Your task to perform on an android device: turn on priority inbox in the gmail app Image 0: 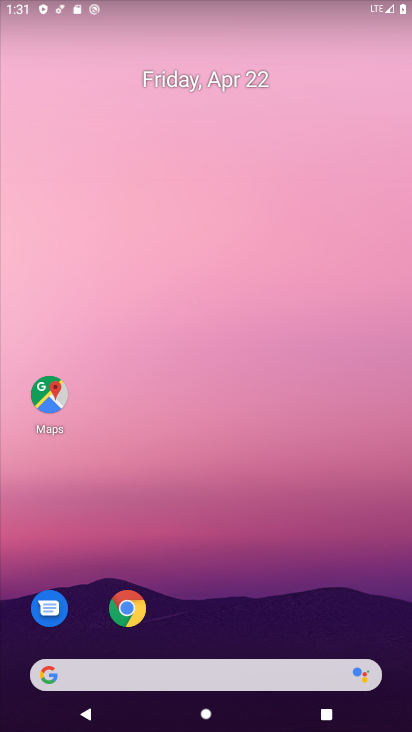
Step 0: drag from (183, 692) to (221, 298)
Your task to perform on an android device: turn on priority inbox in the gmail app Image 1: 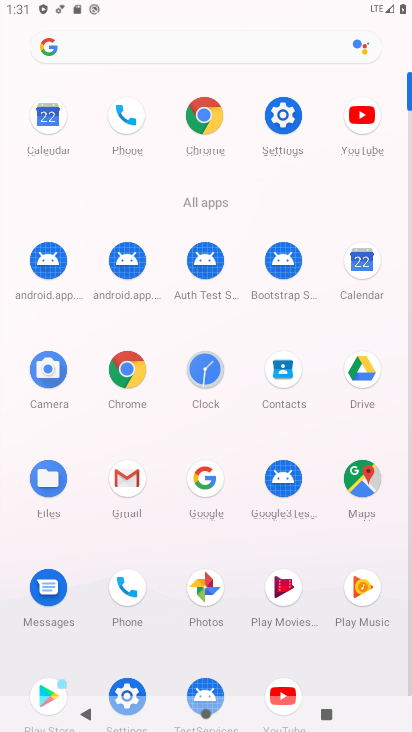
Step 1: click (118, 470)
Your task to perform on an android device: turn on priority inbox in the gmail app Image 2: 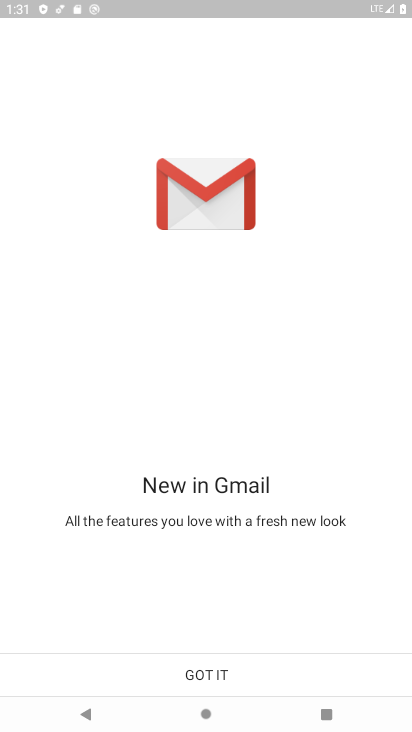
Step 2: click (172, 682)
Your task to perform on an android device: turn on priority inbox in the gmail app Image 3: 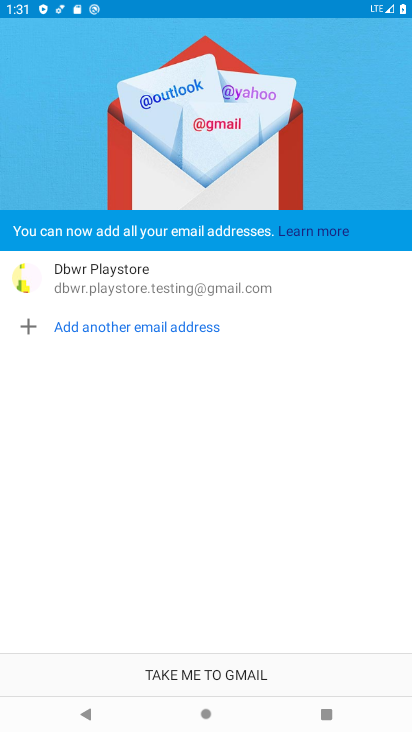
Step 3: click (172, 677)
Your task to perform on an android device: turn on priority inbox in the gmail app Image 4: 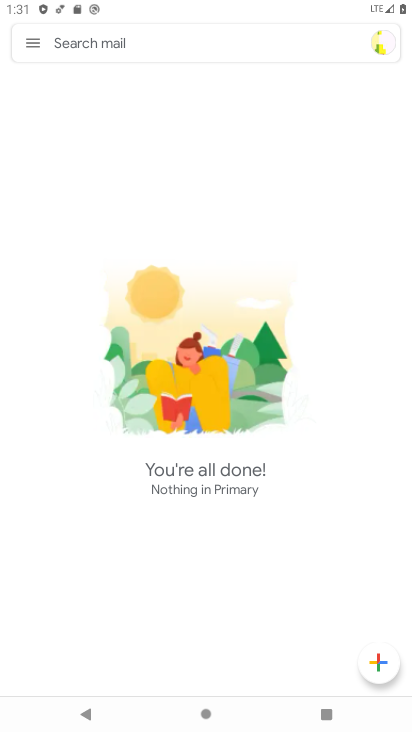
Step 4: click (44, 39)
Your task to perform on an android device: turn on priority inbox in the gmail app Image 5: 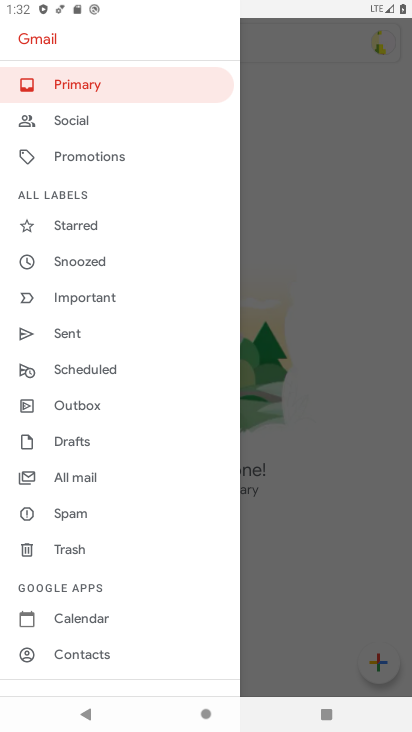
Step 5: drag from (64, 582) to (104, 476)
Your task to perform on an android device: turn on priority inbox in the gmail app Image 6: 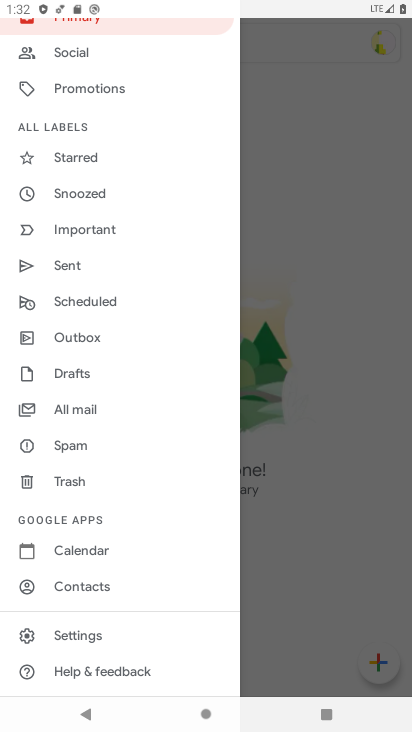
Step 6: click (80, 623)
Your task to perform on an android device: turn on priority inbox in the gmail app Image 7: 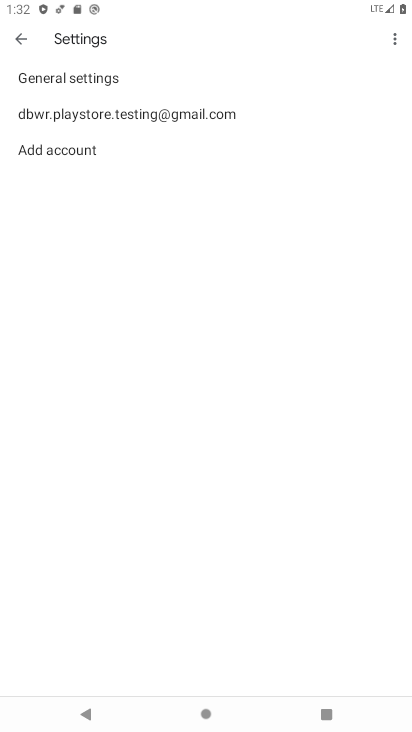
Step 7: click (113, 118)
Your task to perform on an android device: turn on priority inbox in the gmail app Image 8: 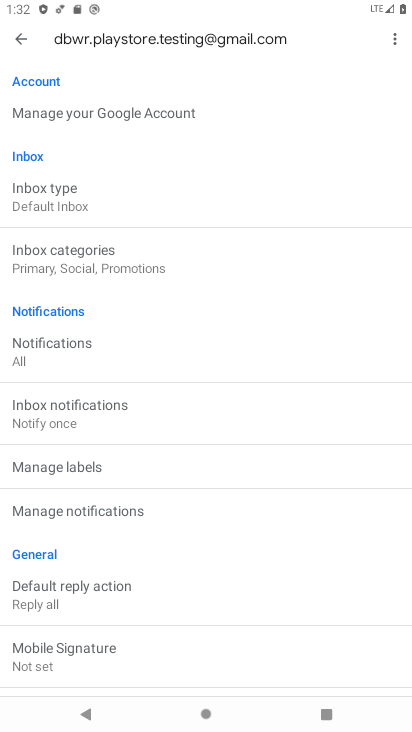
Step 8: click (102, 186)
Your task to perform on an android device: turn on priority inbox in the gmail app Image 9: 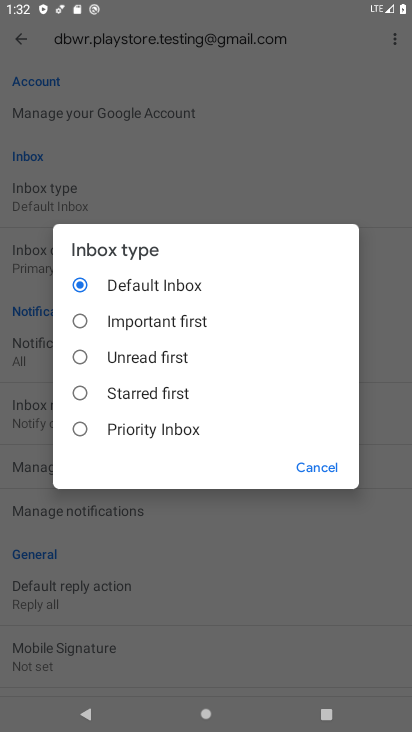
Step 9: click (139, 420)
Your task to perform on an android device: turn on priority inbox in the gmail app Image 10: 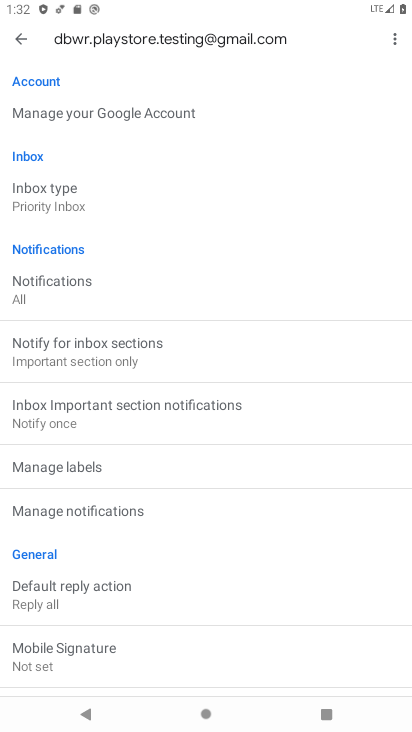
Step 10: task complete